Your task to perform on an android device: What is the news today? Image 0: 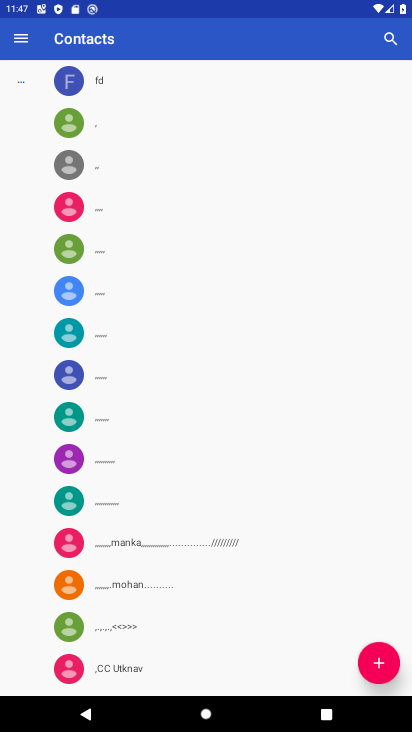
Step 0: press back button
Your task to perform on an android device: What is the news today? Image 1: 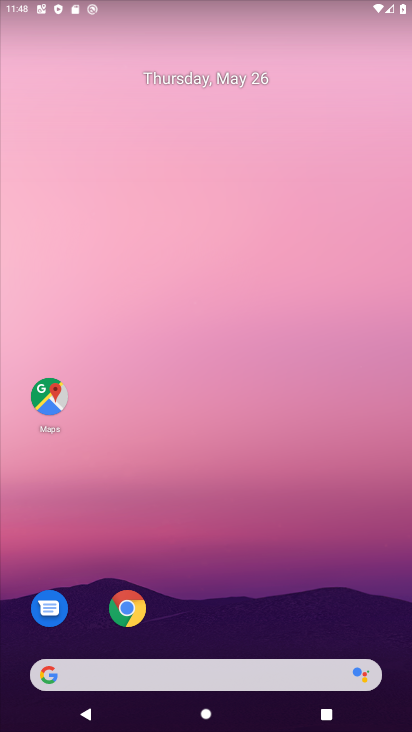
Step 1: drag from (254, 506) to (197, 30)
Your task to perform on an android device: What is the news today? Image 2: 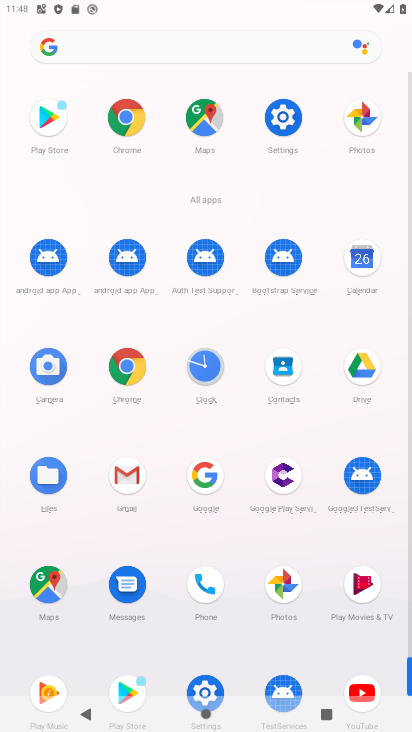
Step 2: click (127, 371)
Your task to perform on an android device: What is the news today? Image 3: 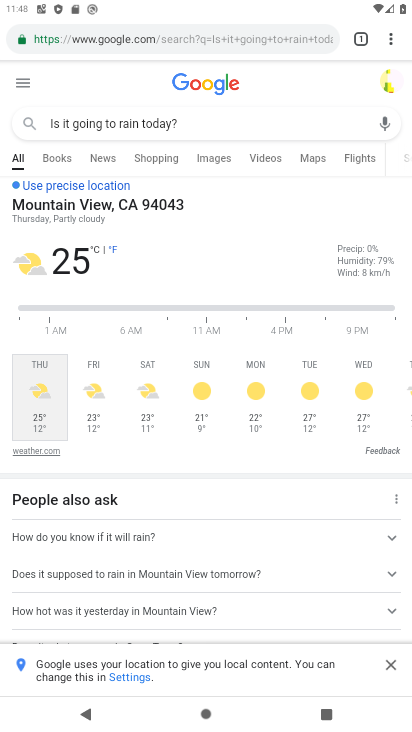
Step 3: task complete